Your task to perform on an android device: open chrome privacy settings Image 0: 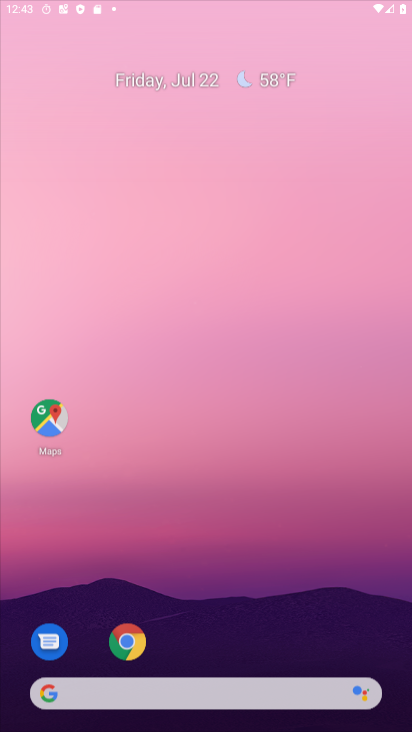
Step 0: click (252, 182)
Your task to perform on an android device: open chrome privacy settings Image 1: 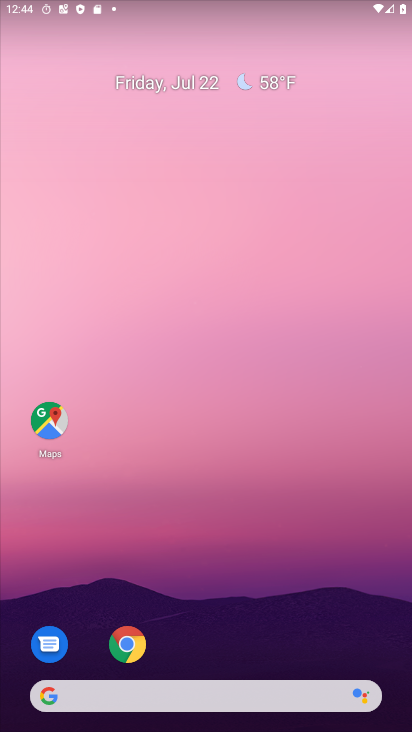
Step 1: drag from (228, 597) to (302, 158)
Your task to perform on an android device: open chrome privacy settings Image 2: 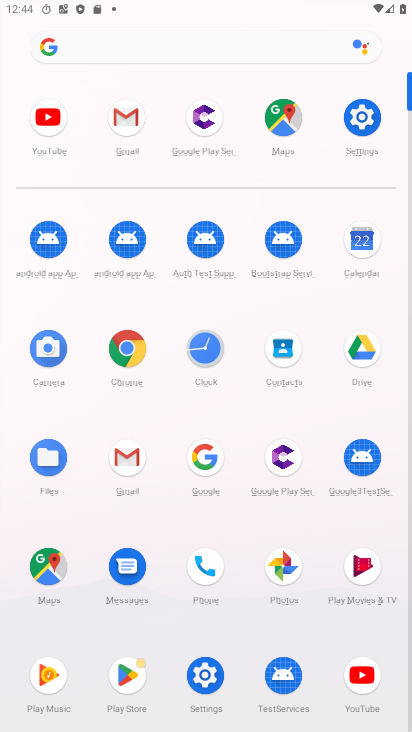
Step 2: click (121, 337)
Your task to perform on an android device: open chrome privacy settings Image 3: 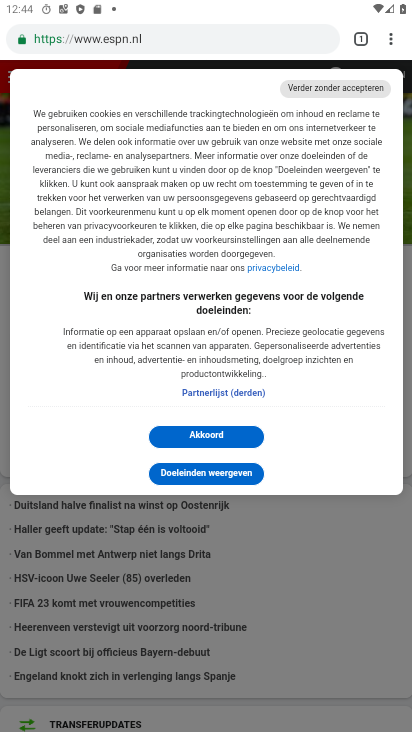
Step 3: drag from (197, 489) to (239, 316)
Your task to perform on an android device: open chrome privacy settings Image 4: 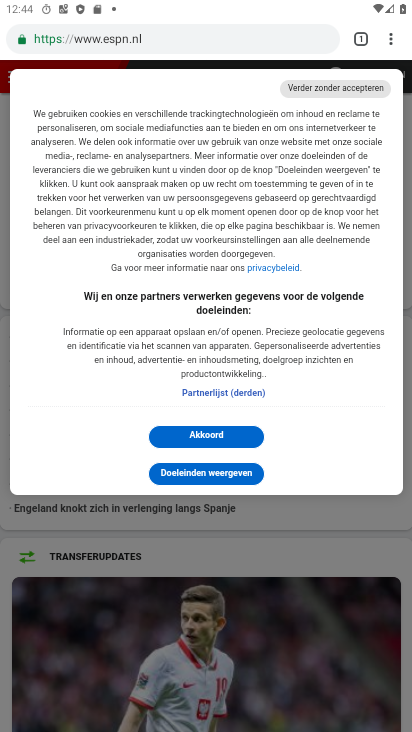
Step 4: drag from (253, 524) to (265, 365)
Your task to perform on an android device: open chrome privacy settings Image 5: 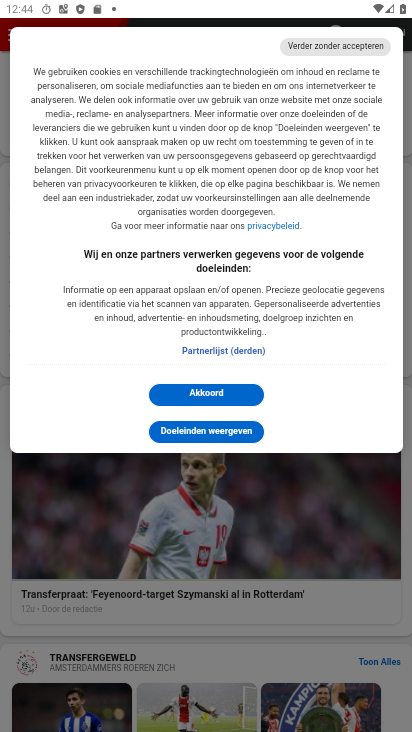
Step 5: drag from (379, 103) to (398, 717)
Your task to perform on an android device: open chrome privacy settings Image 6: 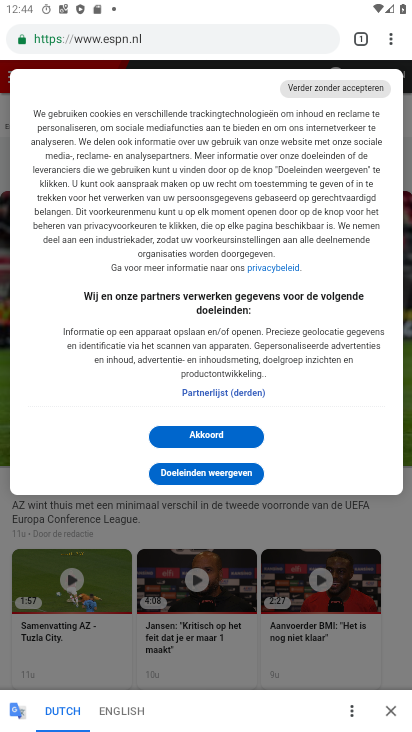
Step 6: drag from (392, 35) to (279, 512)
Your task to perform on an android device: open chrome privacy settings Image 7: 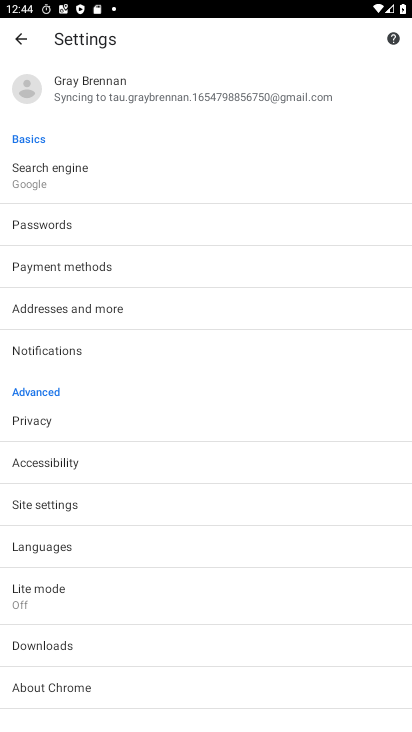
Step 7: click (94, 415)
Your task to perform on an android device: open chrome privacy settings Image 8: 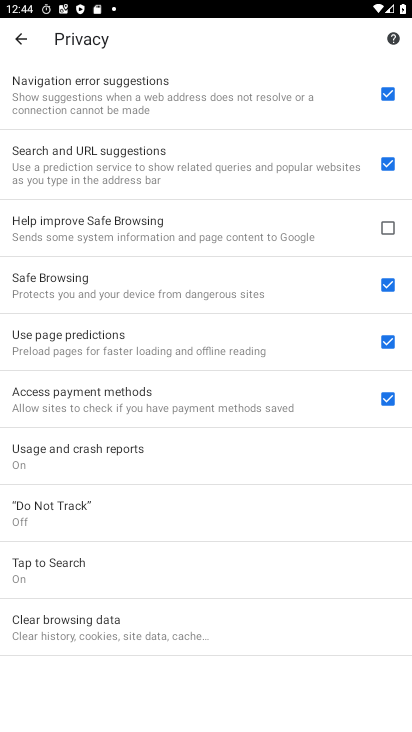
Step 8: task complete